Your task to perform on an android device: Show the shopping cart on target. Add "lg ultragear" to the cart on target, then select checkout. Image 0: 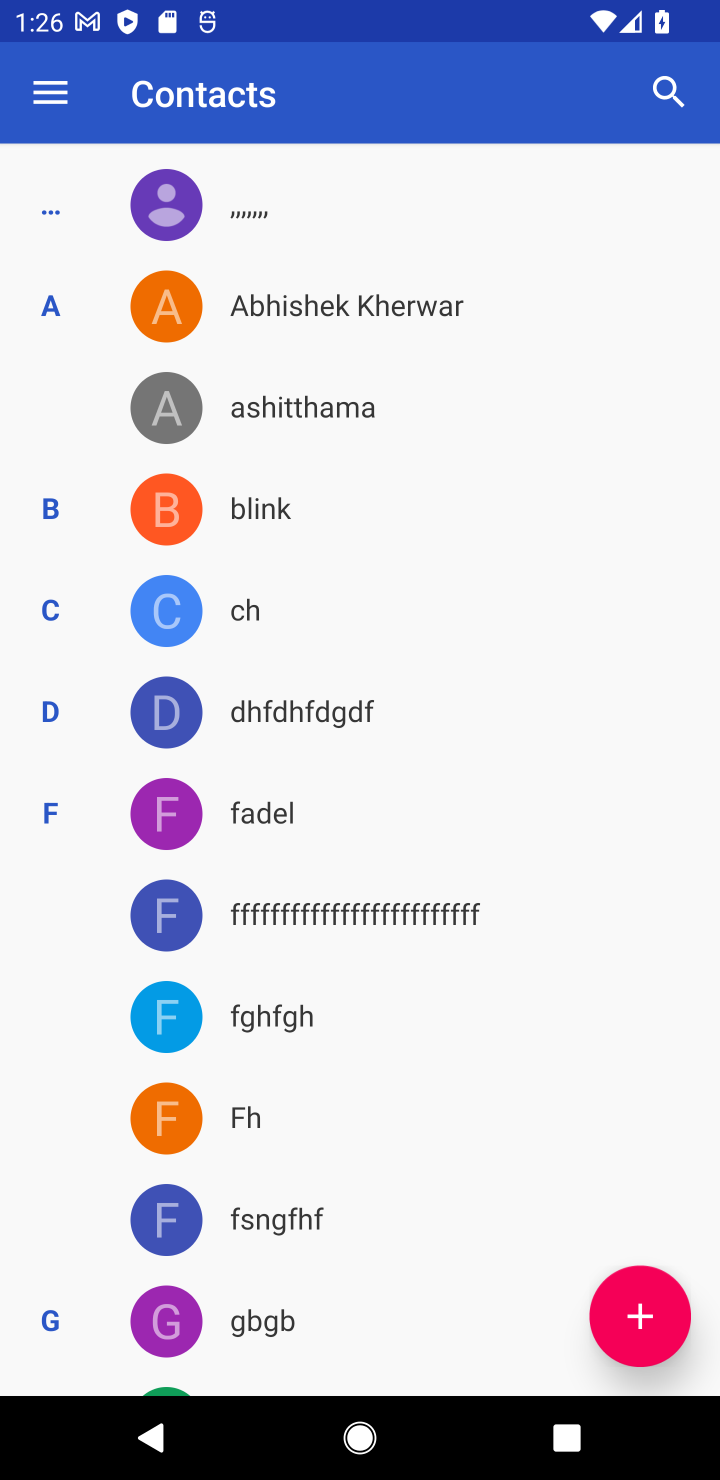
Step 0: press home button
Your task to perform on an android device: Show the shopping cart on target. Add "lg ultragear" to the cart on target, then select checkout. Image 1: 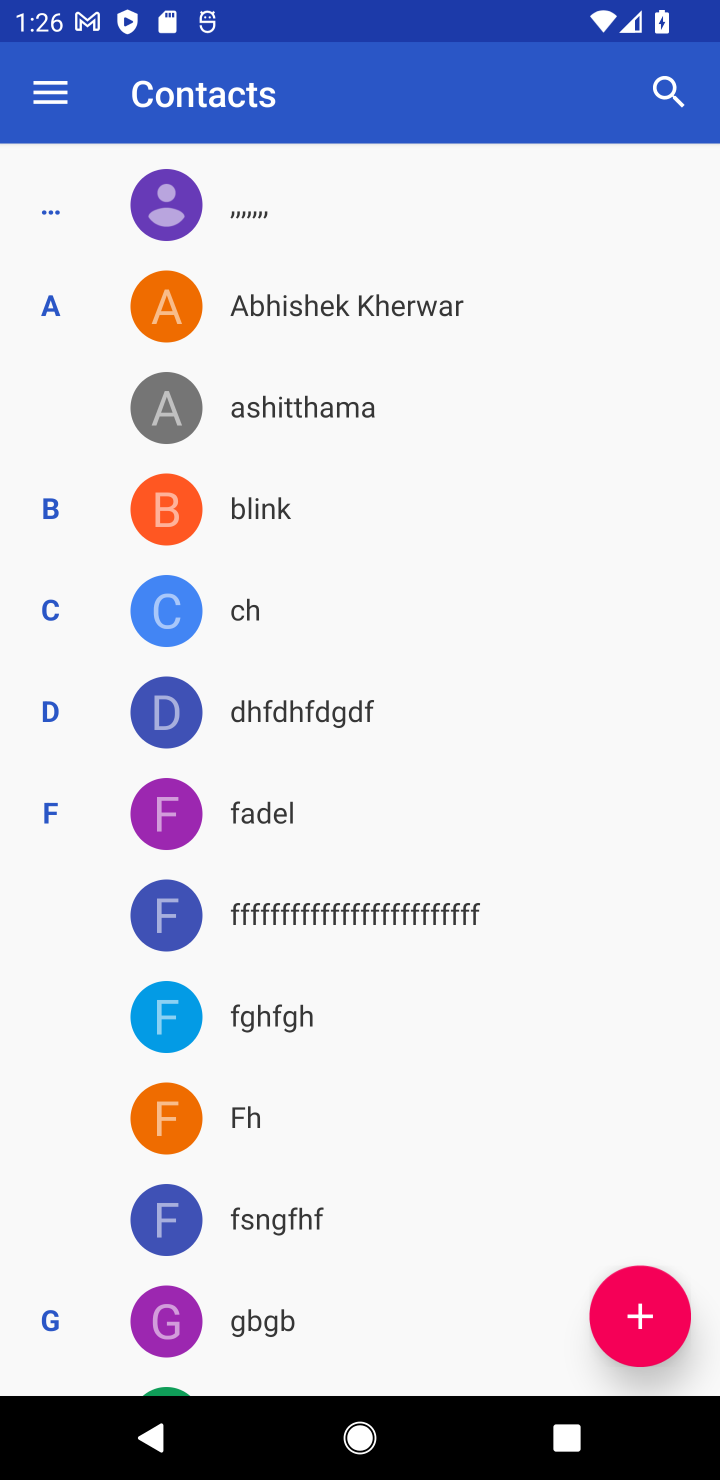
Step 1: press home button
Your task to perform on an android device: Show the shopping cart on target. Add "lg ultragear" to the cart on target, then select checkout. Image 2: 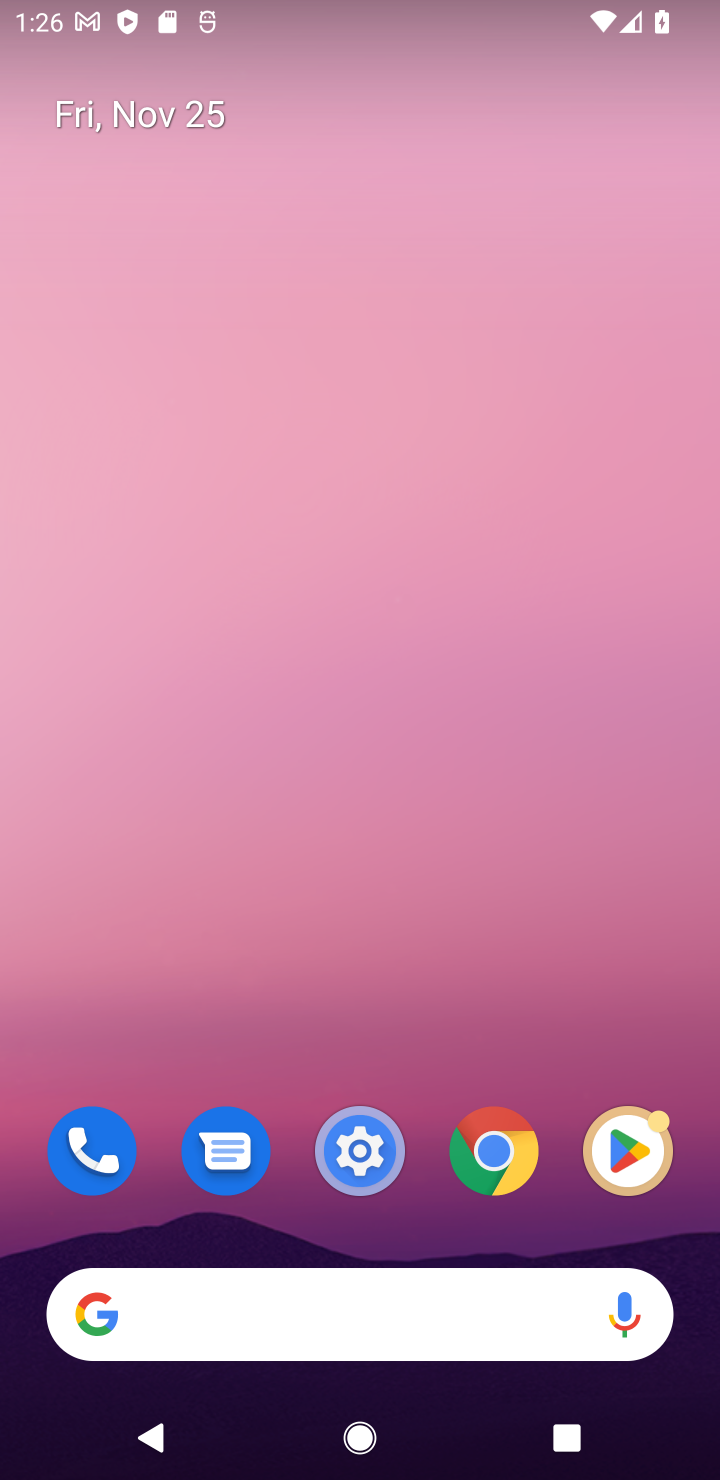
Step 2: click (263, 1342)
Your task to perform on an android device: Show the shopping cart on target. Add "lg ultragear" to the cart on target, then select checkout. Image 3: 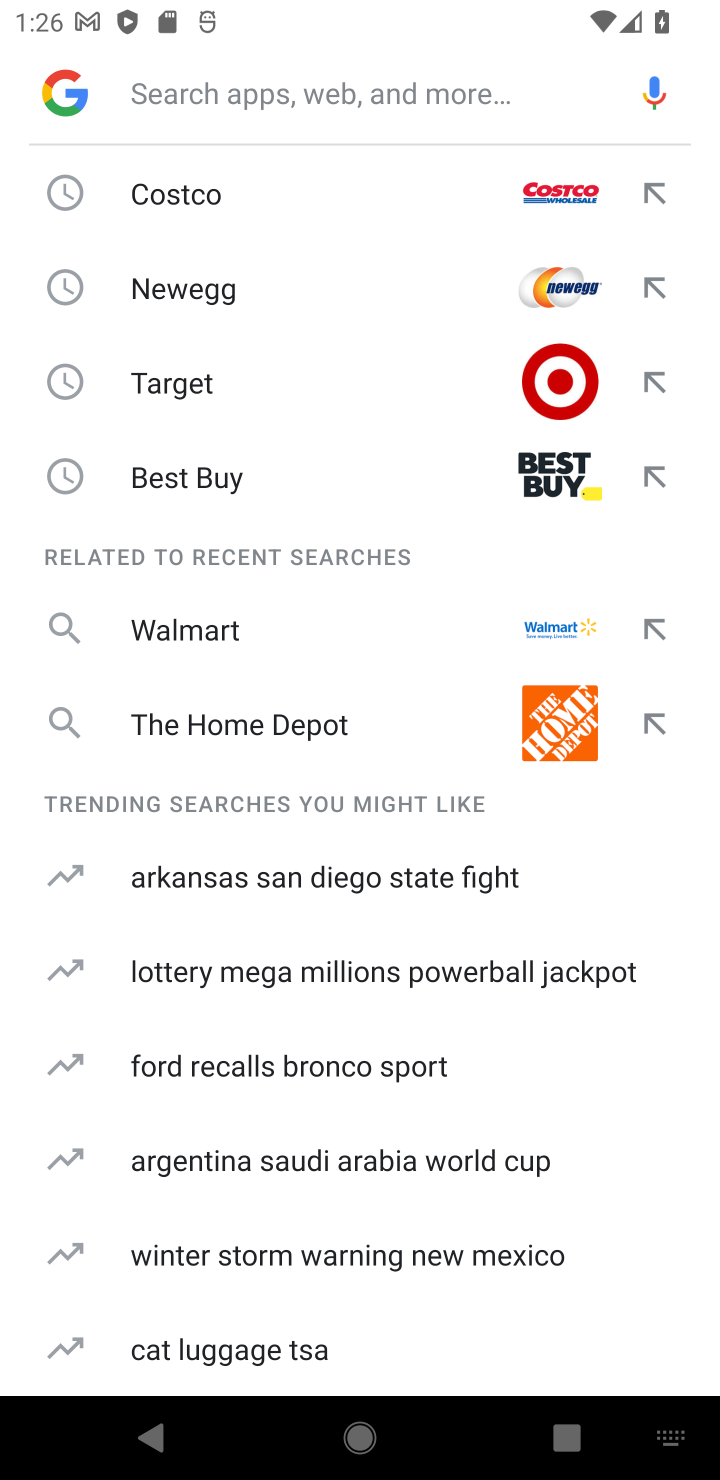
Step 3: click (188, 365)
Your task to perform on an android device: Show the shopping cart on target. Add "lg ultragear" to the cart on target, then select checkout. Image 4: 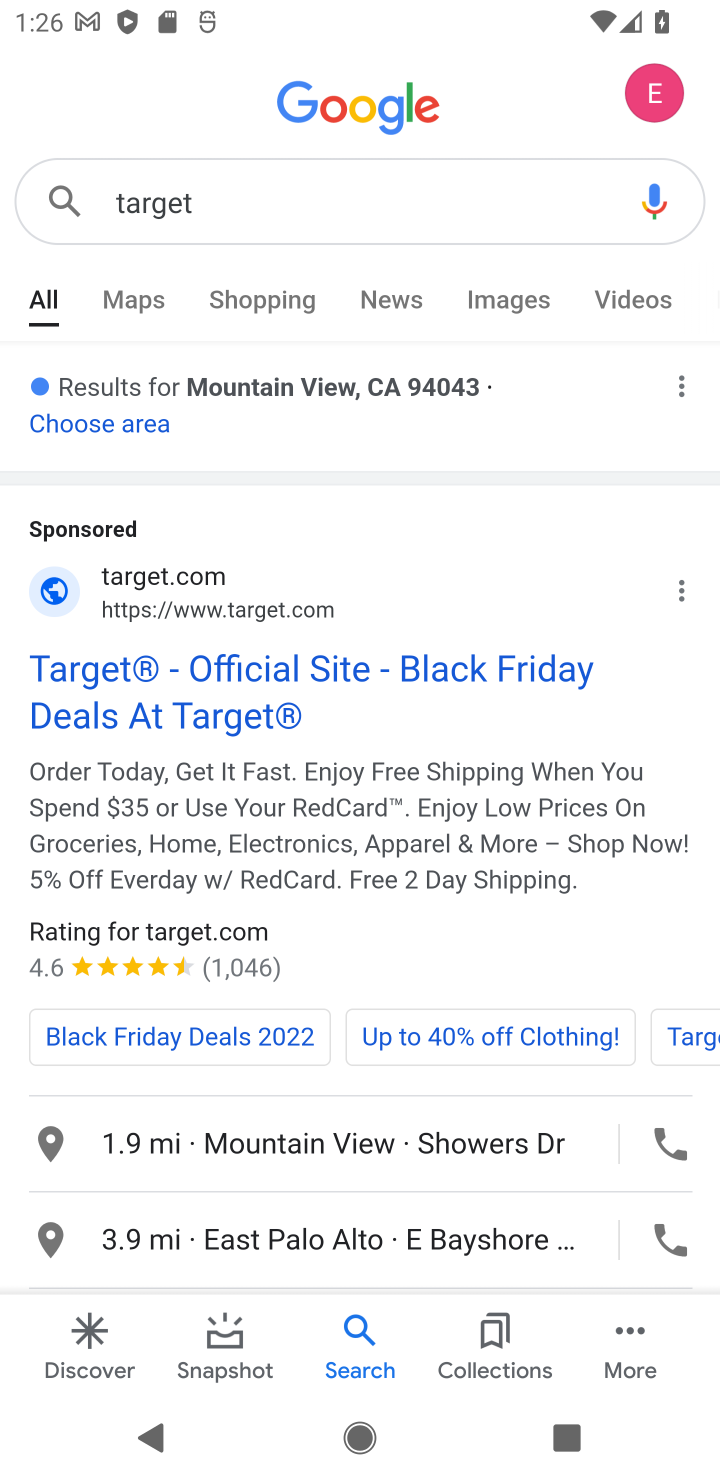
Step 4: click (188, 683)
Your task to perform on an android device: Show the shopping cart on target. Add "lg ultragear" to the cart on target, then select checkout. Image 5: 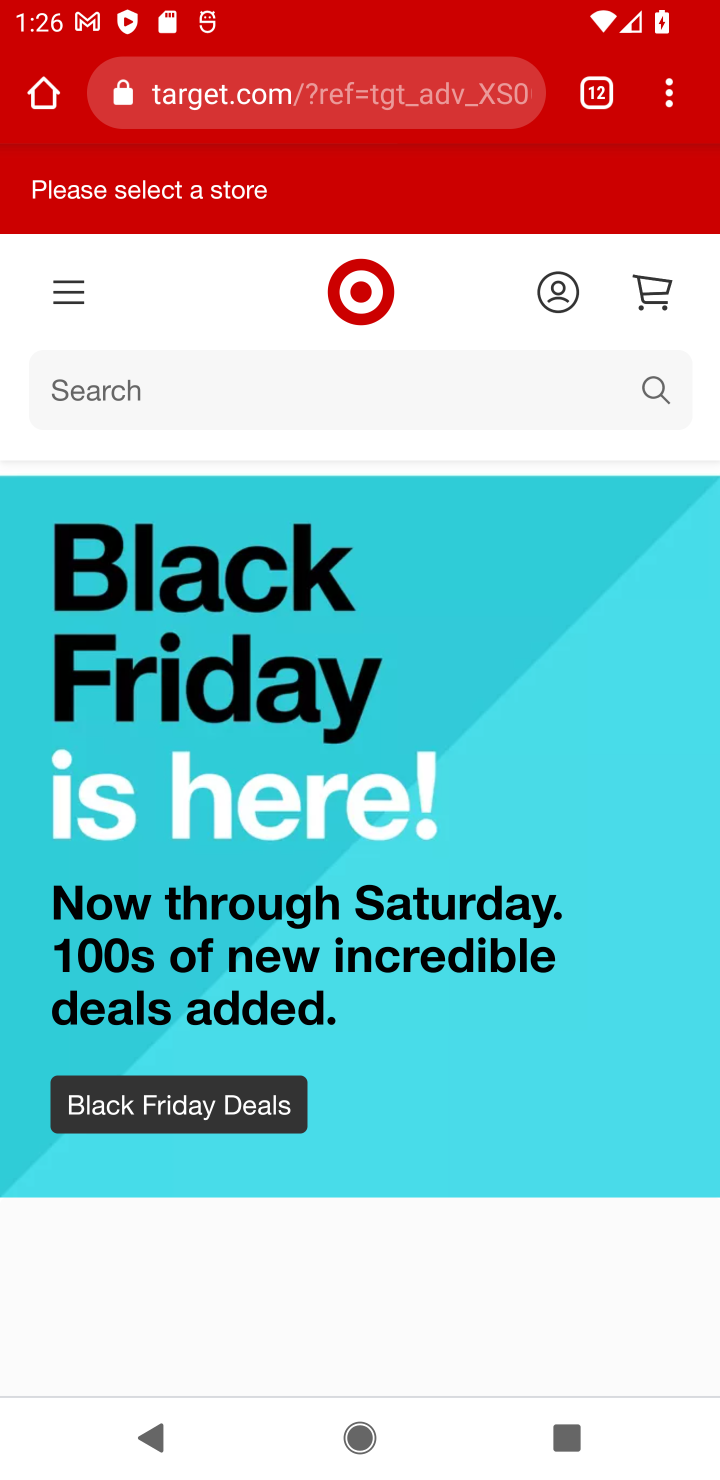
Step 5: click (205, 394)
Your task to perform on an android device: Show the shopping cart on target. Add "lg ultragear" to the cart on target, then select checkout. Image 6: 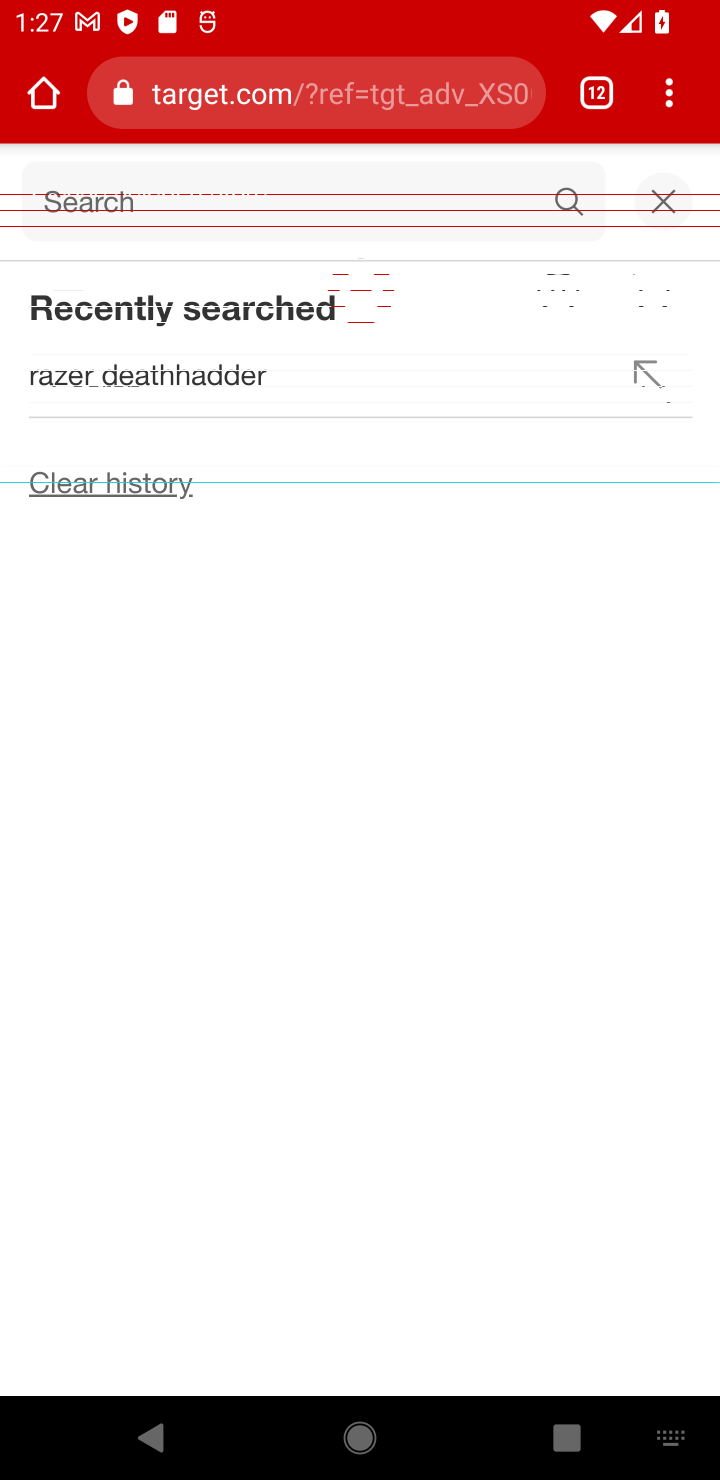
Step 6: type "lgg ultragear"
Your task to perform on an android device: Show the shopping cart on target. Add "lg ultragear" to the cart on target, then select checkout. Image 7: 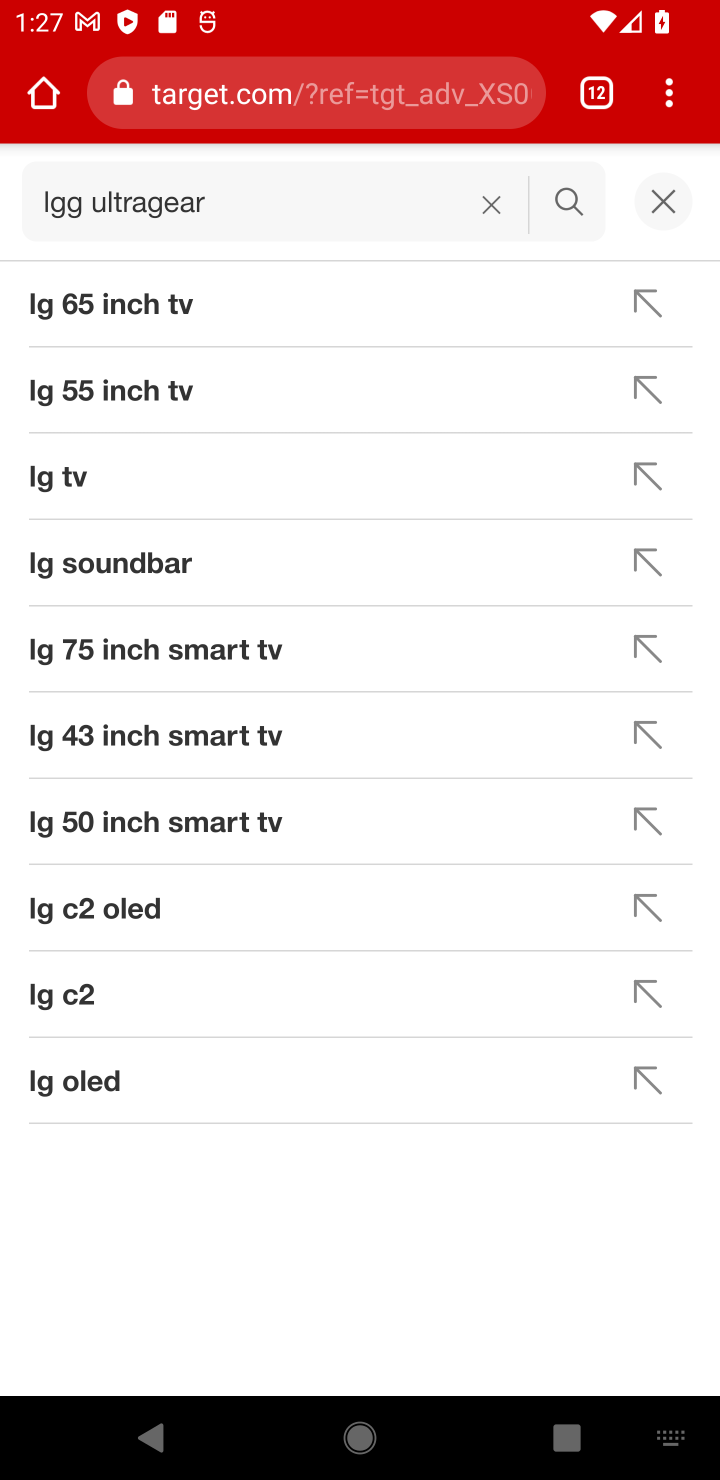
Step 7: click (561, 203)
Your task to perform on an android device: Show the shopping cart on target. Add "lg ultragear" to the cart on target, then select checkout. Image 8: 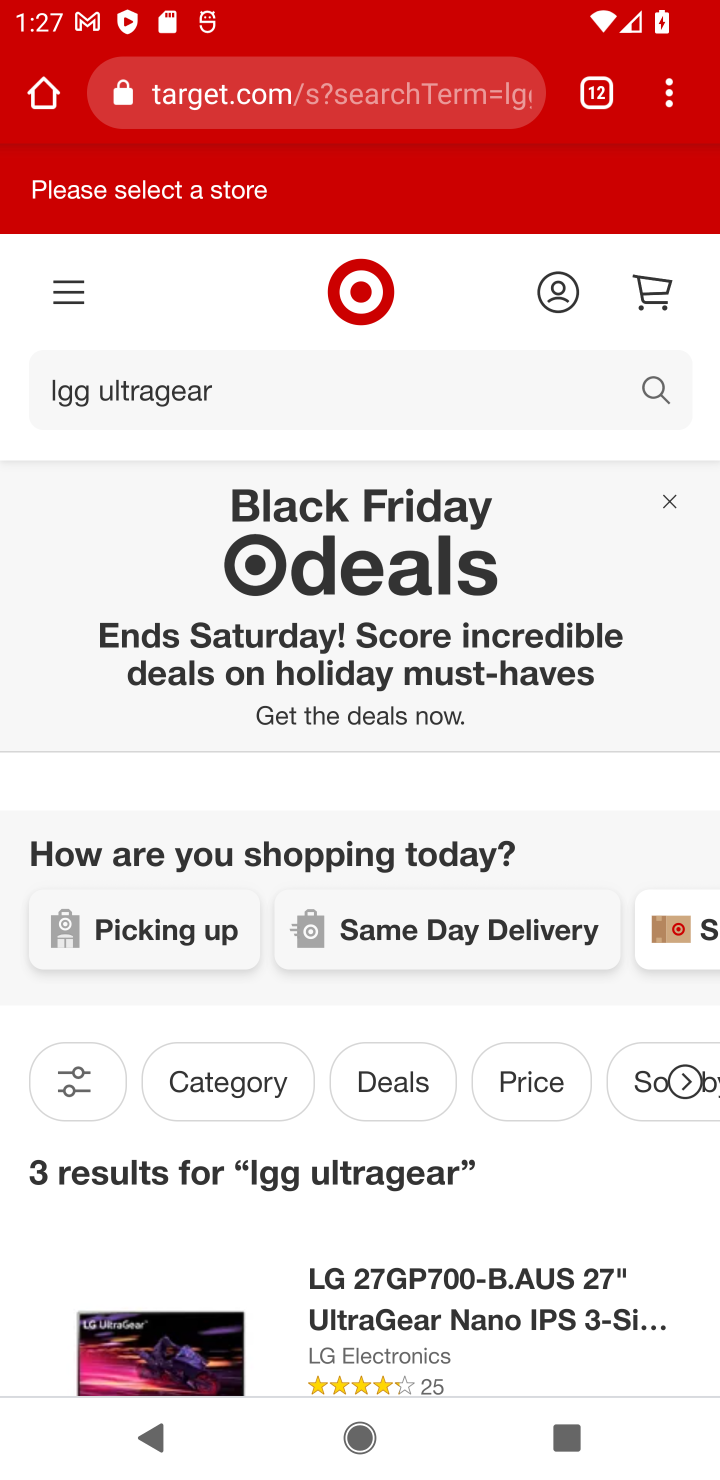
Step 8: click (485, 1274)
Your task to perform on an android device: Show the shopping cart on target. Add "lg ultragear" to the cart on target, then select checkout. Image 9: 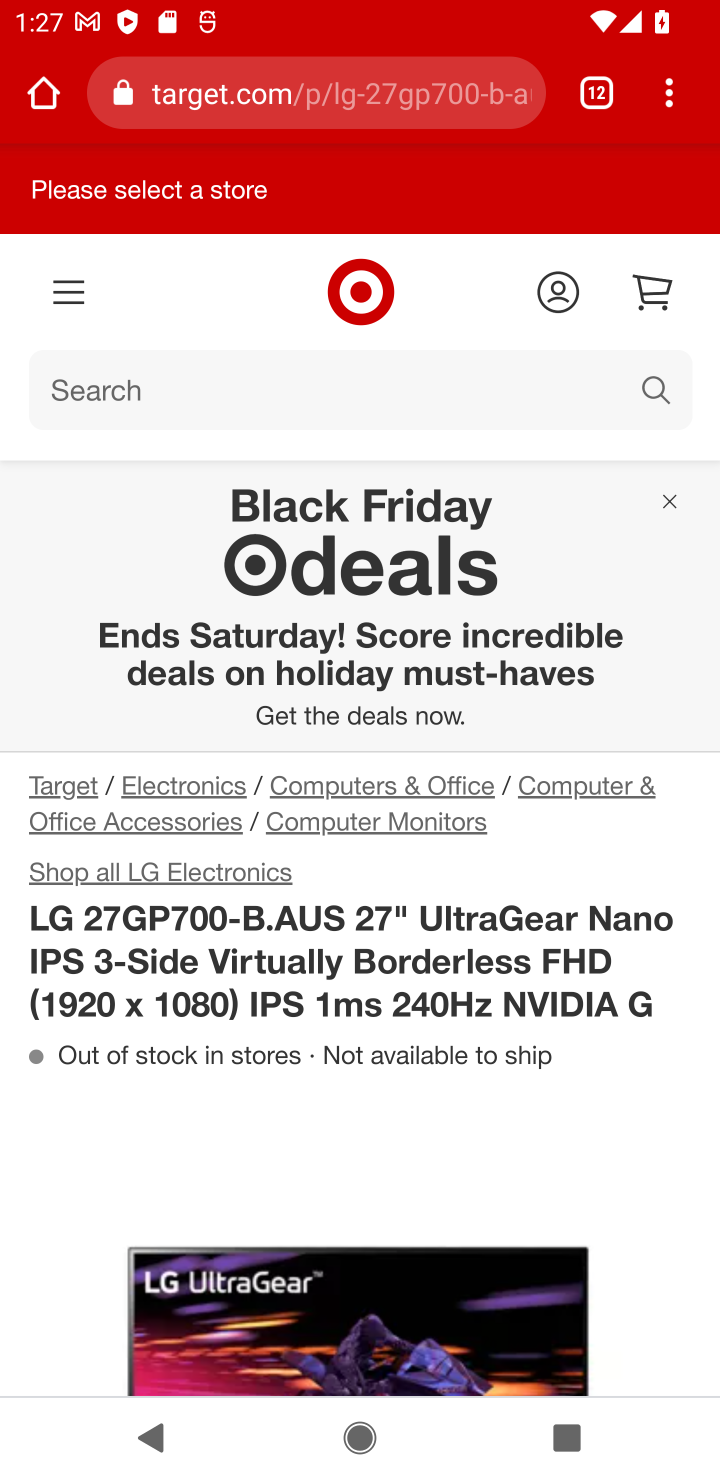
Step 9: drag from (319, 1124) to (282, 524)
Your task to perform on an android device: Show the shopping cart on target. Add "lg ultragear" to the cart on target, then select checkout. Image 10: 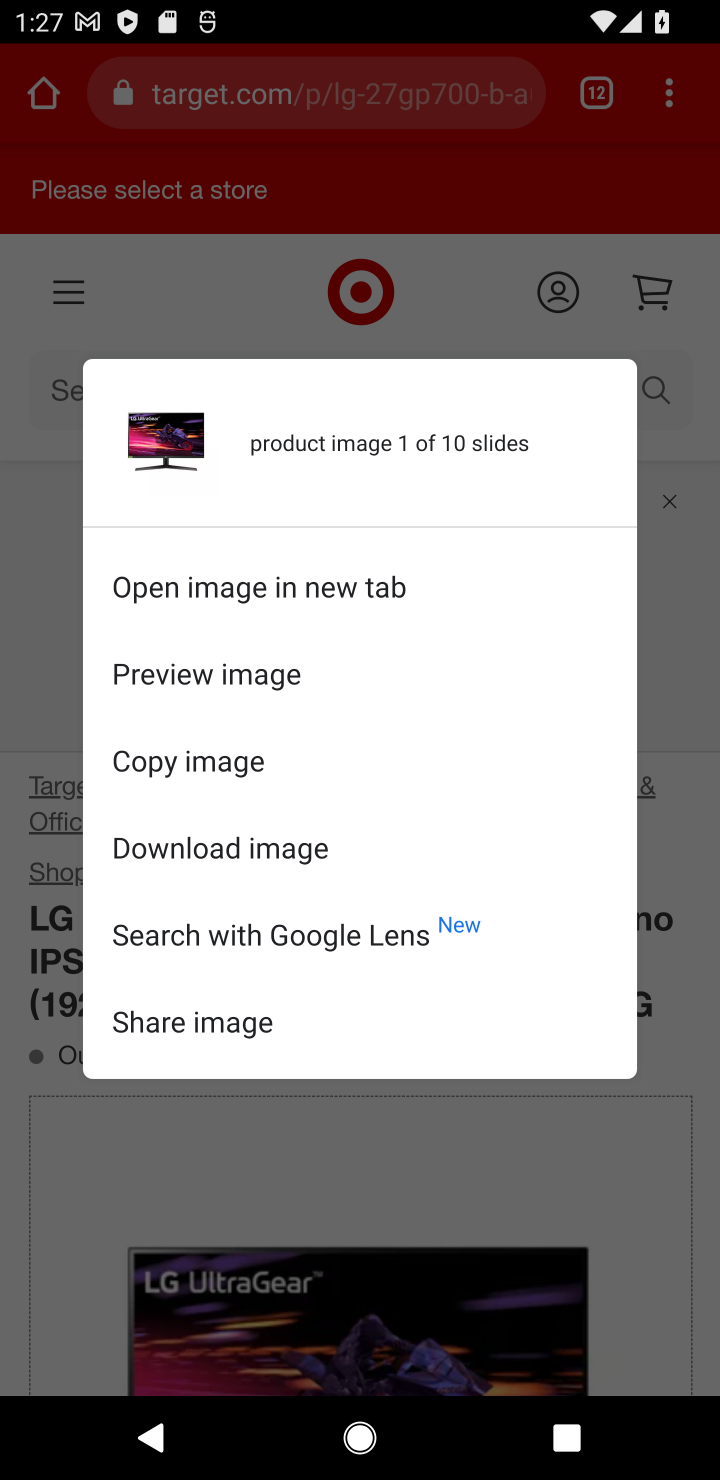
Step 10: click (666, 1050)
Your task to perform on an android device: Show the shopping cart on target. Add "lg ultragear" to the cart on target, then select checkout. Image 11: 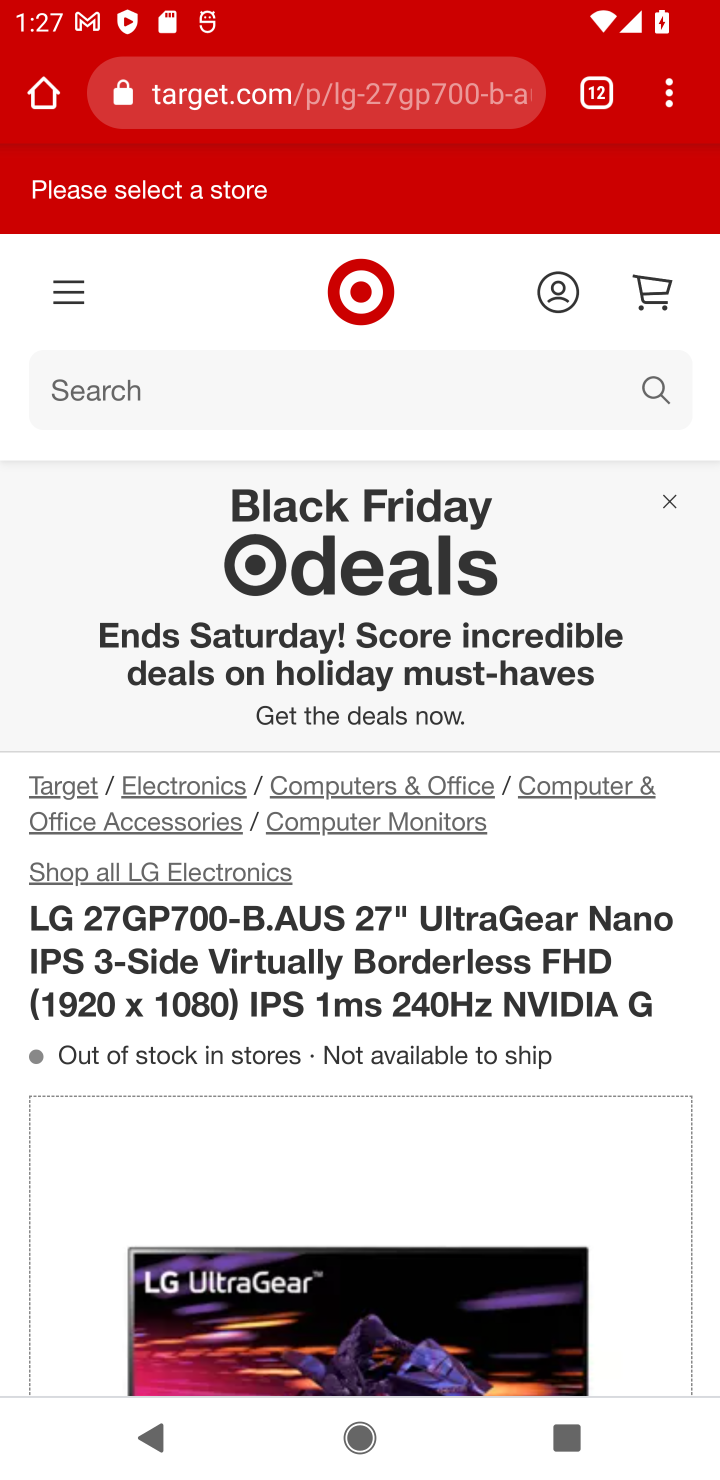
Step 11: task complete